Your task to perform on an android device: Open privacy settings Image 0: 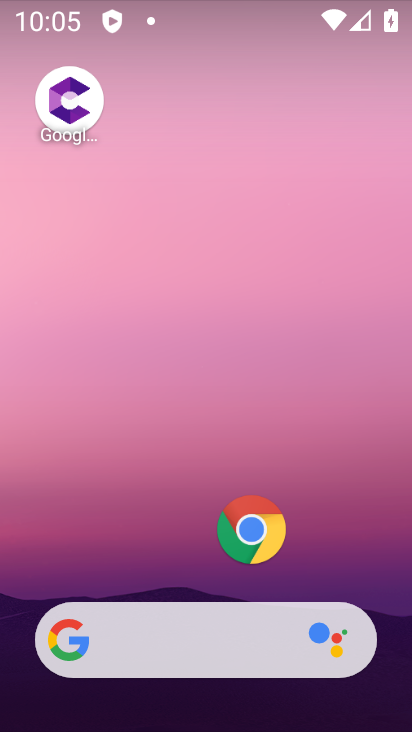
Step 0: drag from (112, 513) to (201, 0)
Your task to perform on an android device: Open privacy settings Image 1: 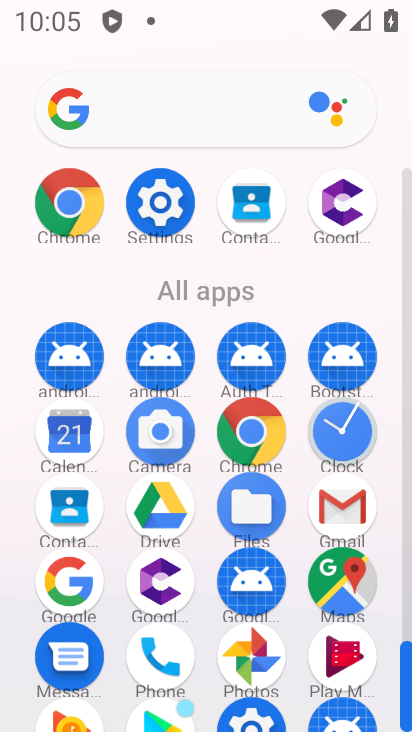
Step 1: click (161, 202)
Your task to perform on an android device: Open privacy settings Image 2: 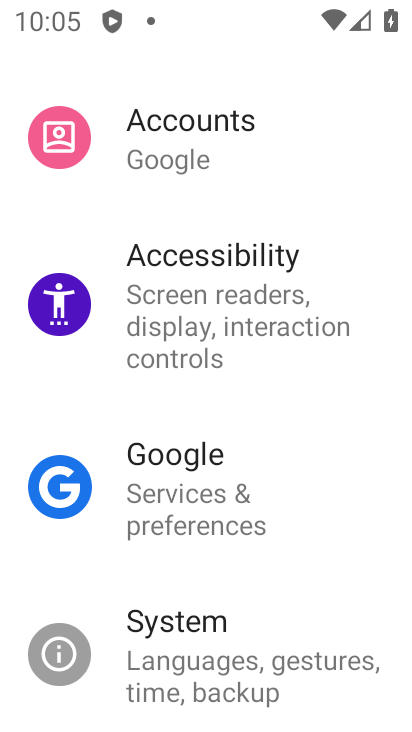
Step 2: drag from (256, 393) to (250, 529)
Your task to perform on an android device: Open privacy settings Image 3: 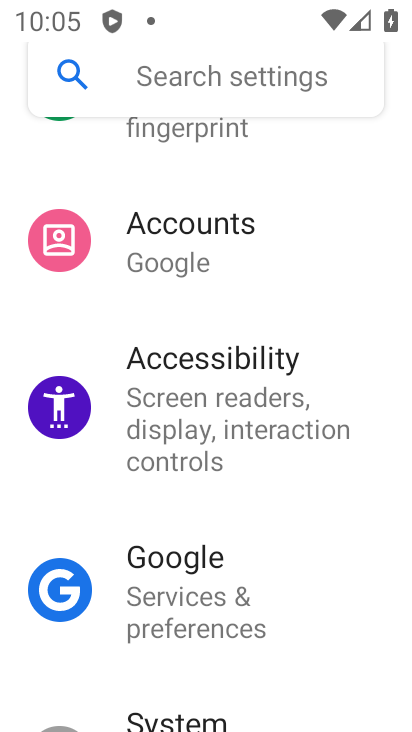
Step 3: drag from (262, 295) to (225, 484)
Your task to perform on an android device: Open privacy settings Image 4: 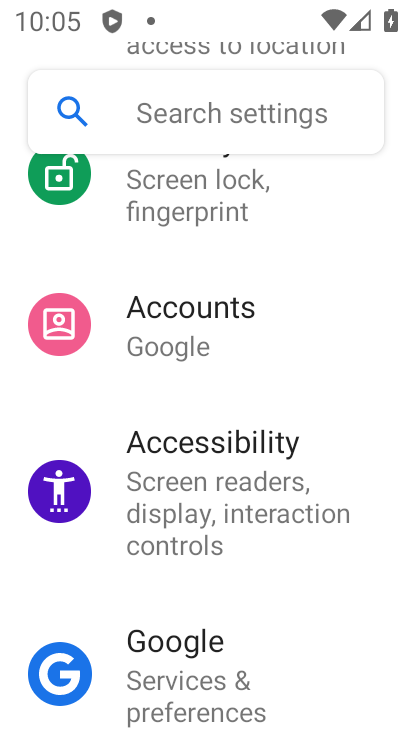
Step 4: drag from (294, 246) to (312, 401)
Your task to perform on an android device: Open privacy settings Image 5: 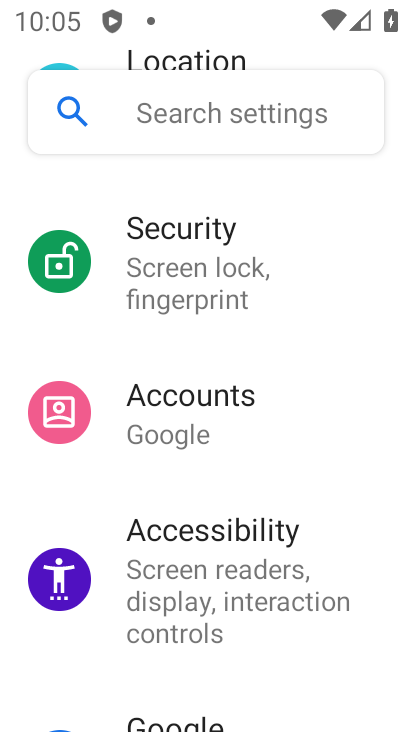
Step 5: drag from (261, 339) to (309, 500)
Your task to perform on an android device: Open privacy settings Image 6: 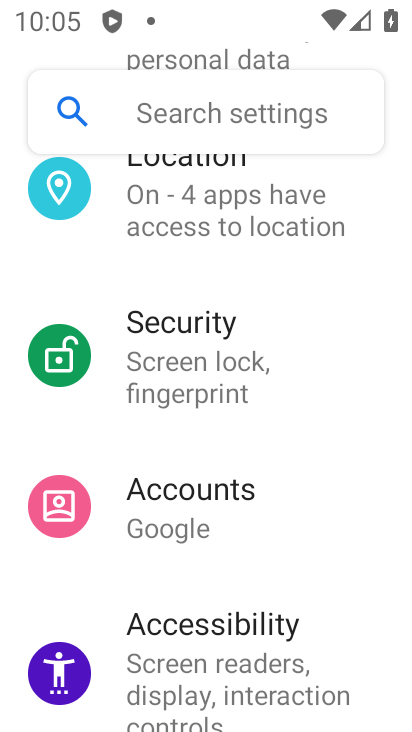
Step 6: drag from (265, 263) to (314, 487)
Your task to perform on an android device: Open privacy settings Image 7: 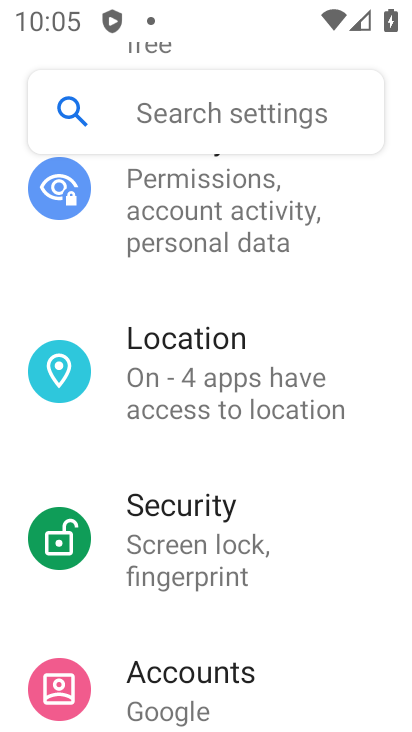
Step 7: drag from (285, 294) to (318, 506)
Your task to perform on an android device: Open privacy settings Image 8: 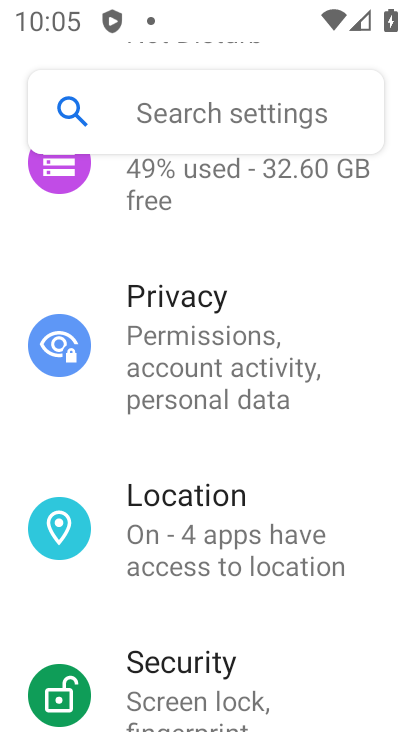
Step 8: click (208, 302)
Your task to perform on an android device: Open privacy settings Image 9: 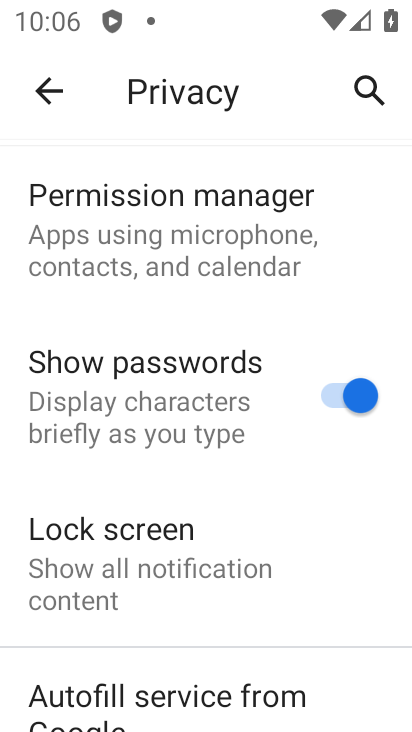
Step 9: task complete